Your task to perform on an android device: add a contact in the contacts app Image 0: 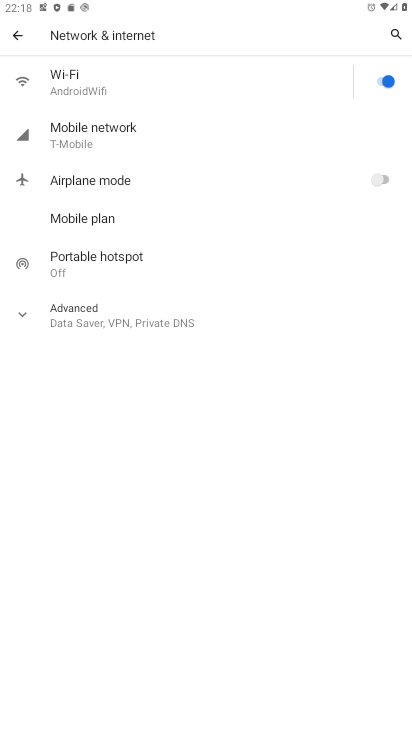
Step 0: drag from (247, 642) to (256, 119)
Your task to perform on an android device: add a contact in the contacts app Image 1: 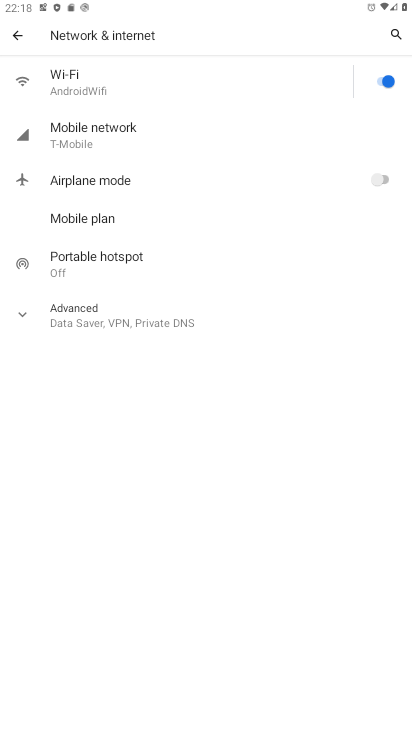
Step 1: press home button
Your task to perform on an android device: add a contact in the contacts app Image 2: 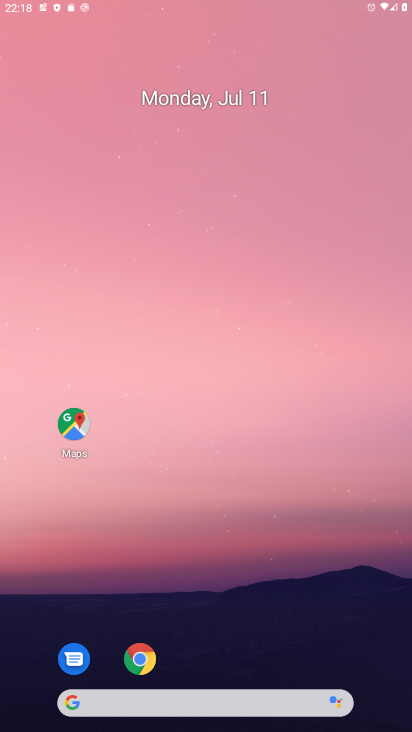
Step 2: drag from (214, 553) to (272, 289)
Your task to perform on an android device: add a contact in the contacts app Image 3: 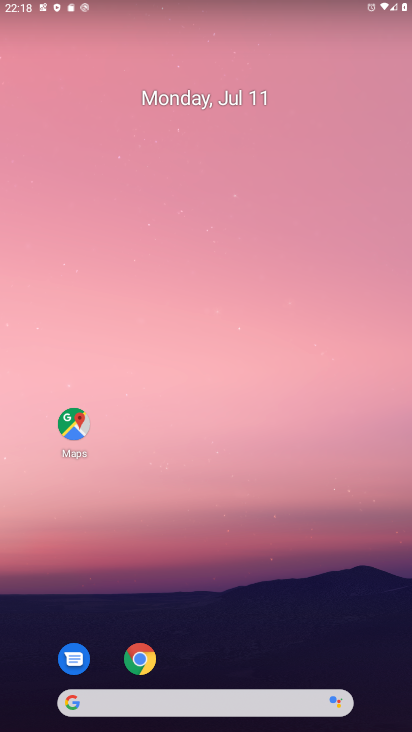
Step 3: drag from (173, 581) to (207, 143)
Your task to perform on an android device: add a contact in the contacts app Image 4: 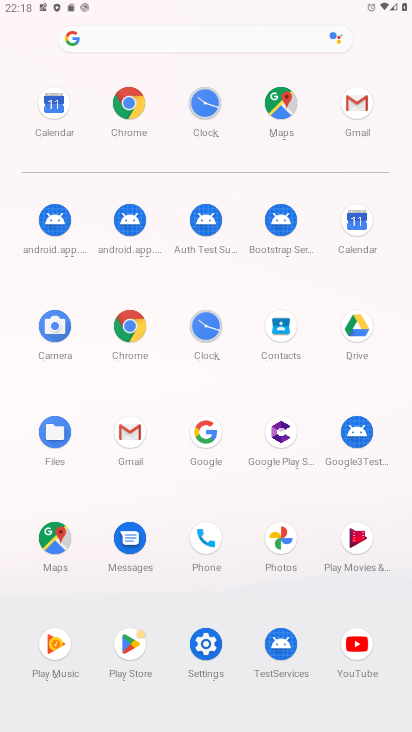
Step 4: click (280, 335)
Your task to perform on an android device: add a contact in the contacts app Image 5: 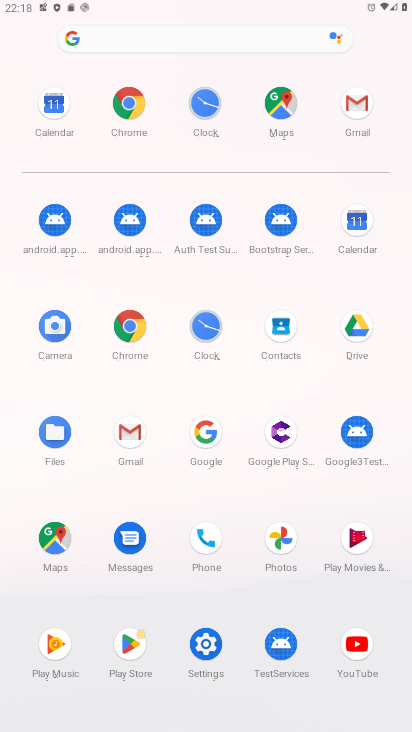
Step 5: click (280, 335)
Your task to perform on an android device: add a contact in the contacts app Image 6: 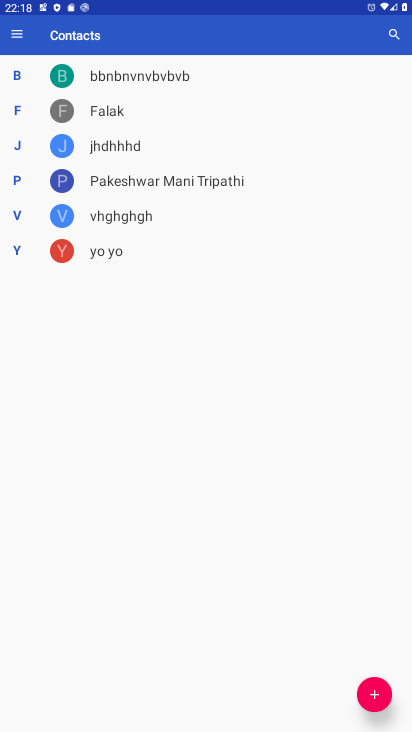
Step 6: drag from (168, 623) to (237, 95)
Your task to perform on an android device: add a contact in the contacts app Image 7: 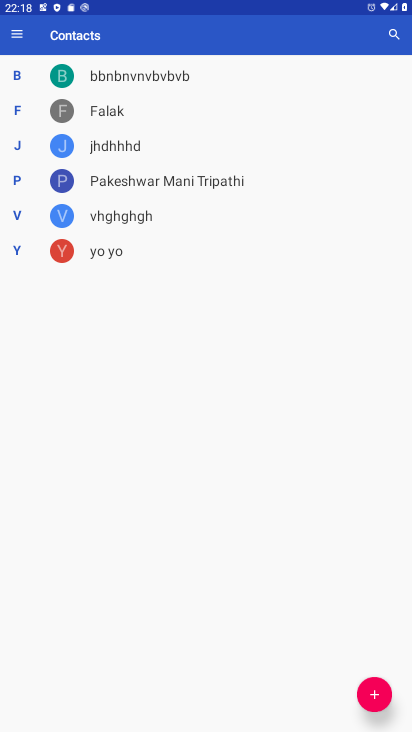
Step 7: click (370, 695)
Your task to perform on an android device: add a contact in the contacts app Image 8: 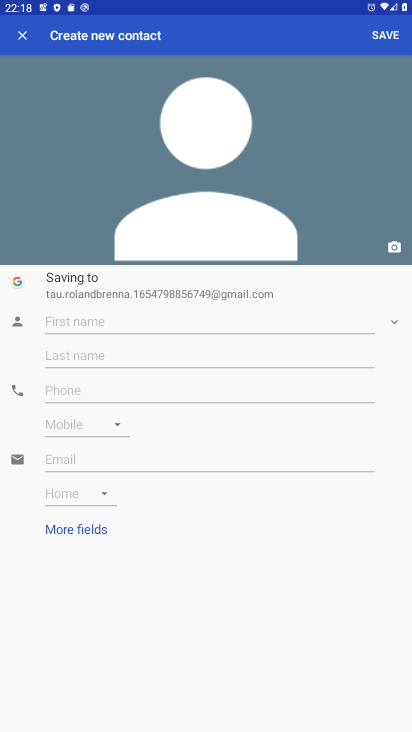
Step 8: click (86, 317)
Your task to perform on an android device: add a contact in the contacts app Image 9: 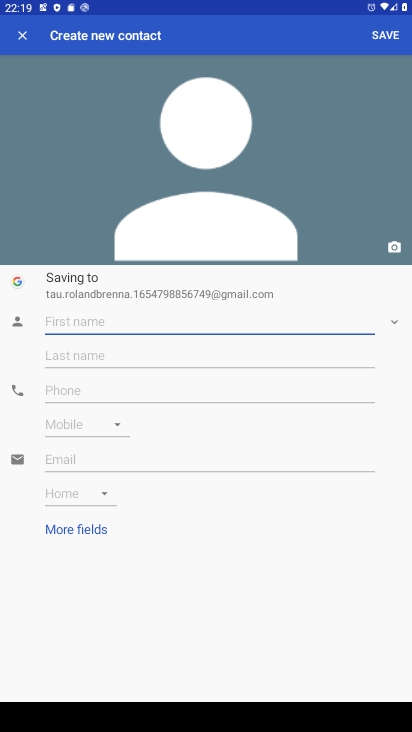
Step 9: type "kaksja"
Your task to perform on an android device: add a contact in the contacts app Image 10: 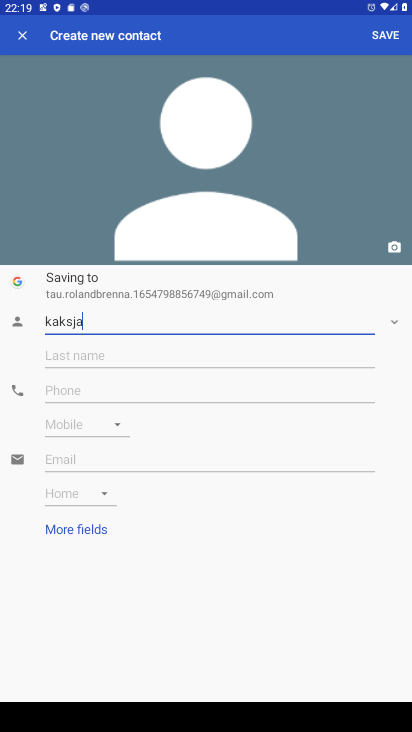
Step 10: click (370, 26)
Your task to perform on an android device: add a contact in the contacts app Image 11: 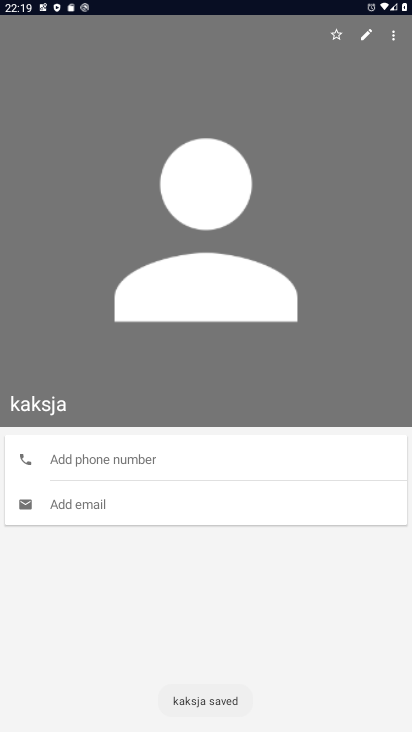
Step 11: task complete